Your task to perform on an android device: delete a single message in the gmail app Image 0: 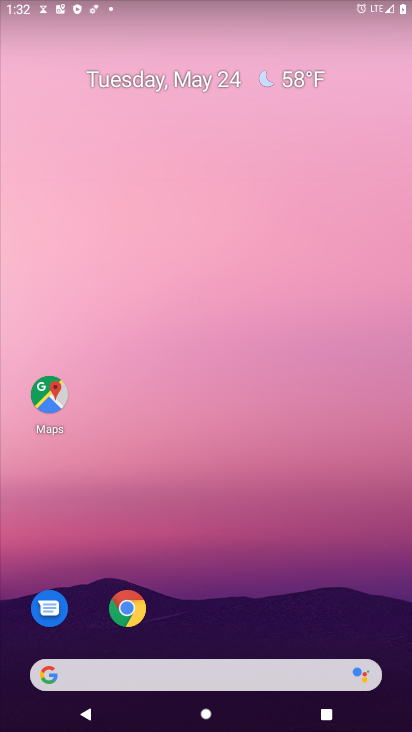
Step 0: press home button
Your task to perform on an android device: delete a single message in the gmail app Image 1: 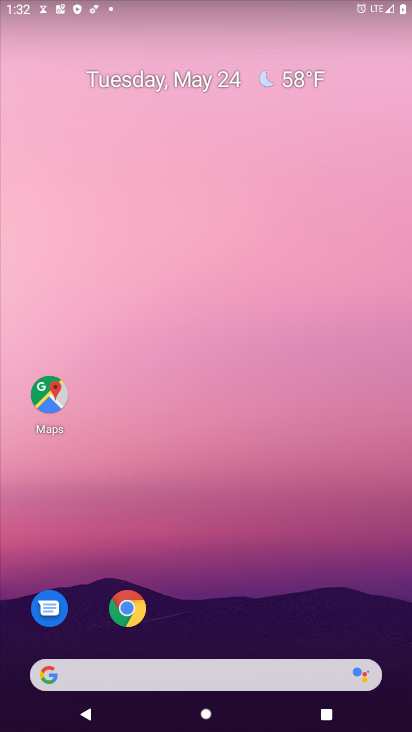
Step 1: drag from (215, 686) to (211, 141)
Your task to perform on an android device: delete a single message in the gmail app Image 2: 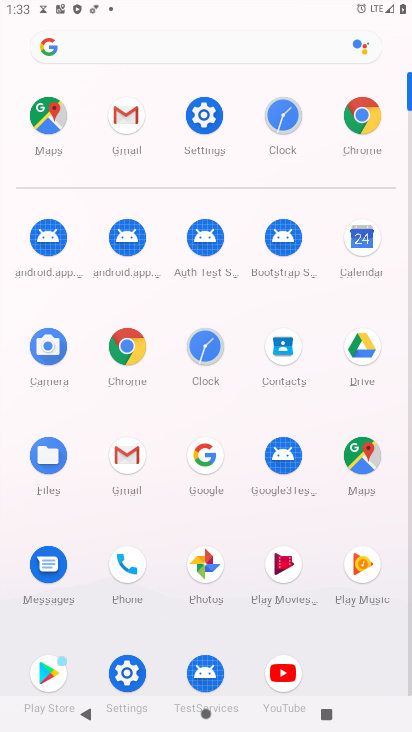
Step 2: click (132, 131)
Your task to perform on an android device: delete a single message in the gmail app Image 3: 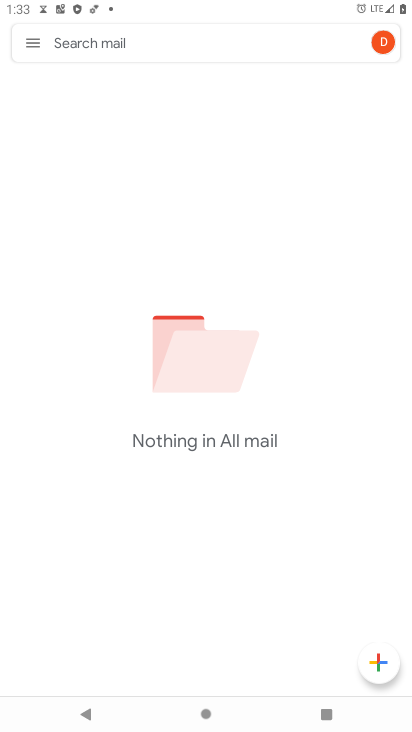
Step 3: task complete